Your task to perform on an android device: Open Chrome and go to settings Image 0: 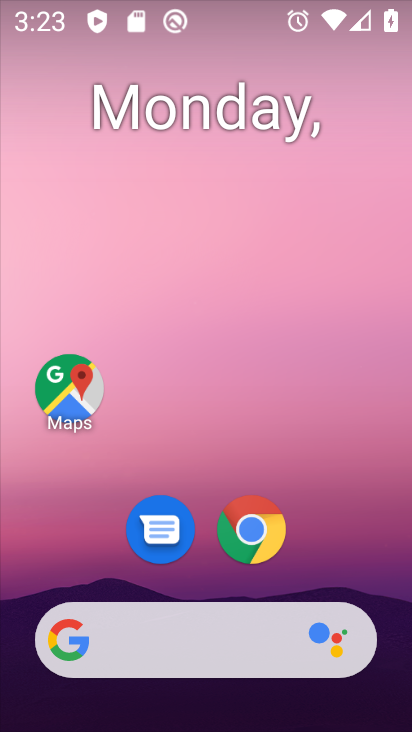
Step 0: click (230, 545)
Your task to perform on an android device: Open Chrome and go to settings Image 1: 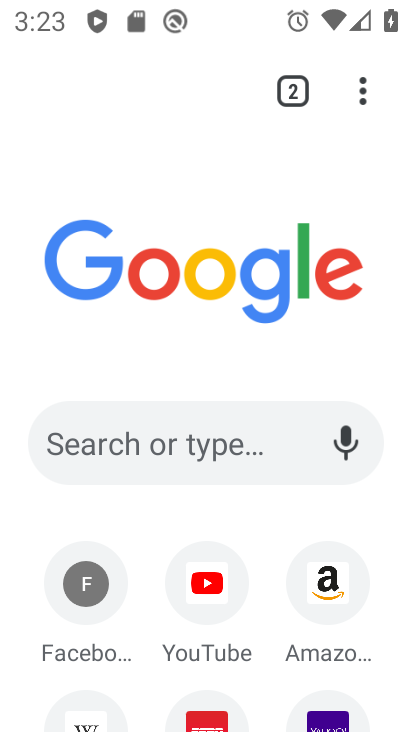
Step 1: click (360, 87)
Your task to perform on an android device: Open Chrome and go to settings Image 2: 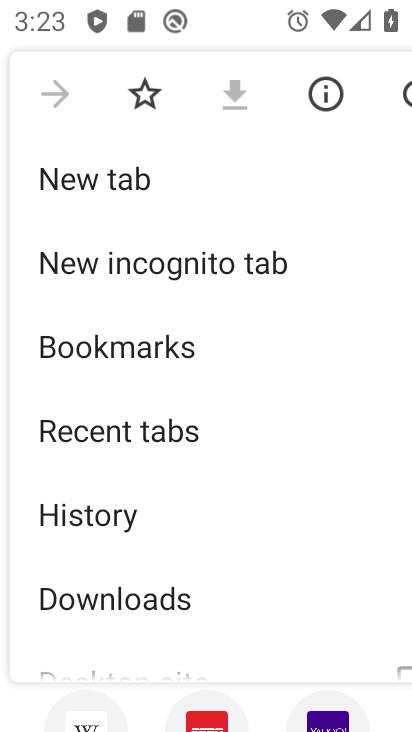
Step 2: drag from (156, 503) to (255, 85)
Your task to perform on an android device: Open Chrome and go to settings Image 3: 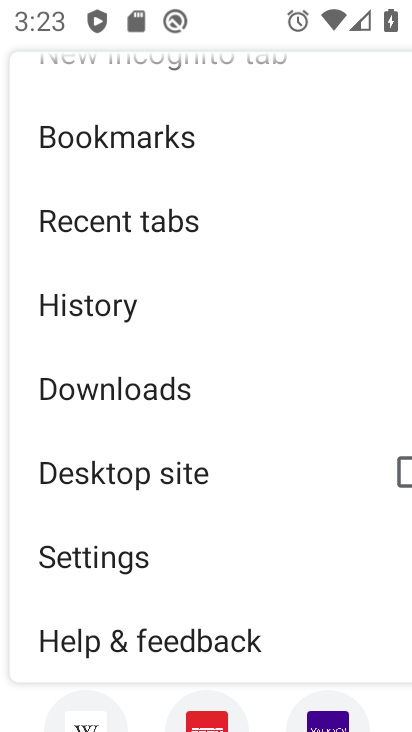
Step 3: click (120, 555)
Your task to perform on an android device: Open Chrome and go to settings Image 4: 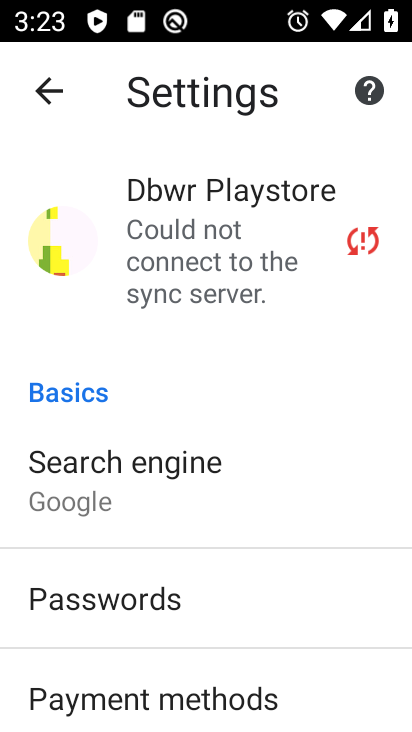
Step 4: task complete